Your task to perform on an android device: Open the calendar app, open the side menu, and click the "Day" option Image 0: 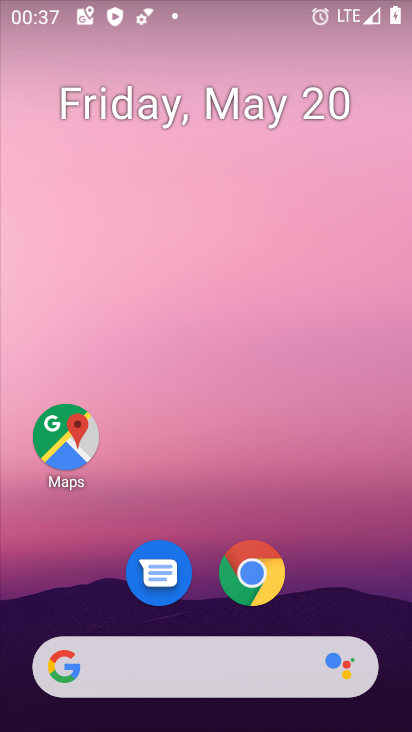
Step 0: drag from (210, 608) to (244, 154)
Your task to perform on an android device: Open the calendar app, open the side menu, and click the "Day" option Image 1: 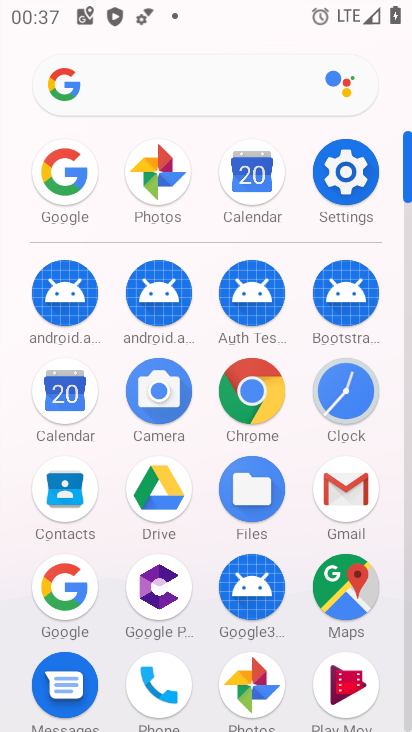
Step 1: click (79, 403)
Your task to perform on an android device: Open the calendar app, open the side menu, and click the "Day" option Image 2: 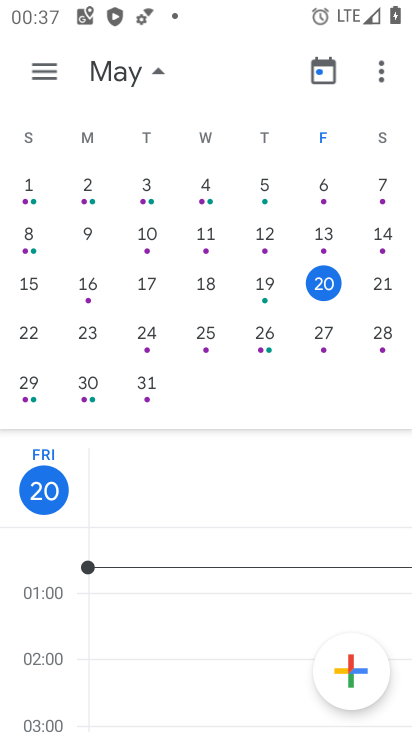
Step 2: click (39, 73)
Your task to perform on an android device: Open the calendar app, open the side menu, and click the "Day" option Image 3: 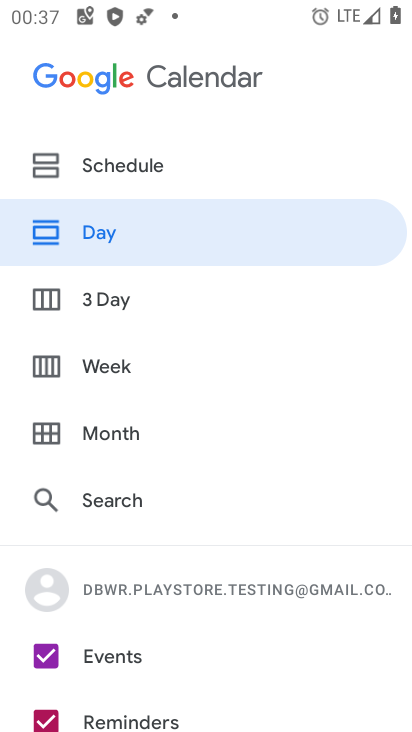
Step 3: click (117, 225)
Your task to perform on an android device: Open the calendar app, open the side menu, and click the "Day" option Image 4: 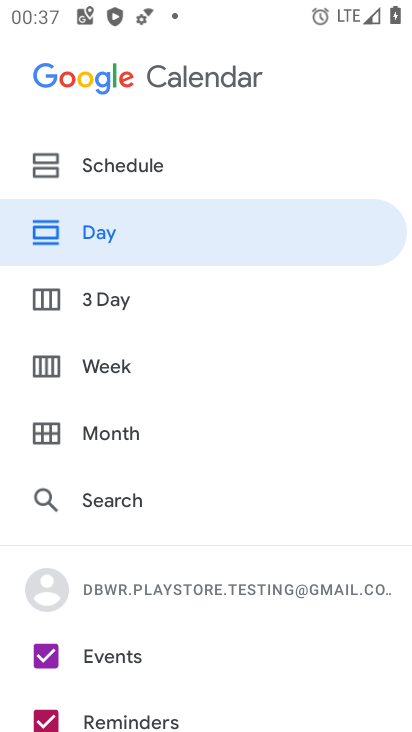
Step 4: task complete